Your task to perform on an android device: Go to accessibility settings Image 0: 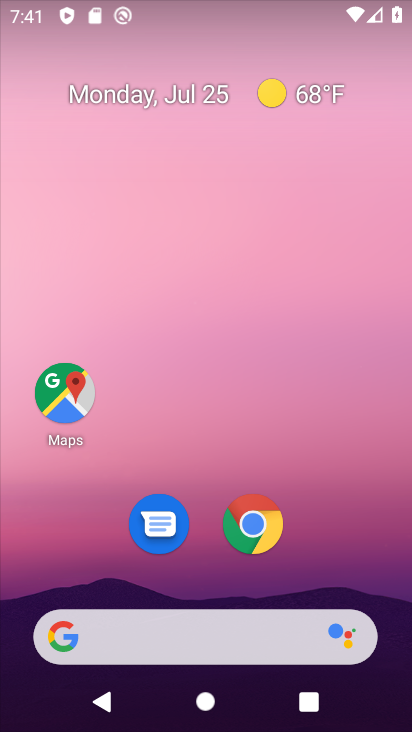
Step 0: drag from (346, 565) to (273, 75)
Your task to perform on an android device: Go to accessibility settings Image 1: 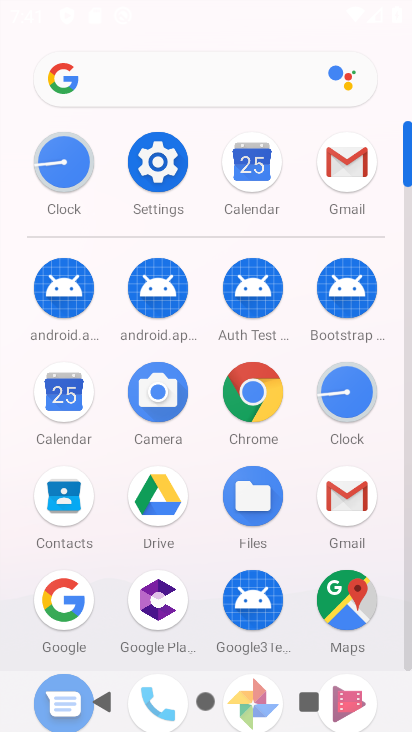
Step 1: click (161, 172)
Your task to perform on an android device: Go to accessibility settings Image 2: 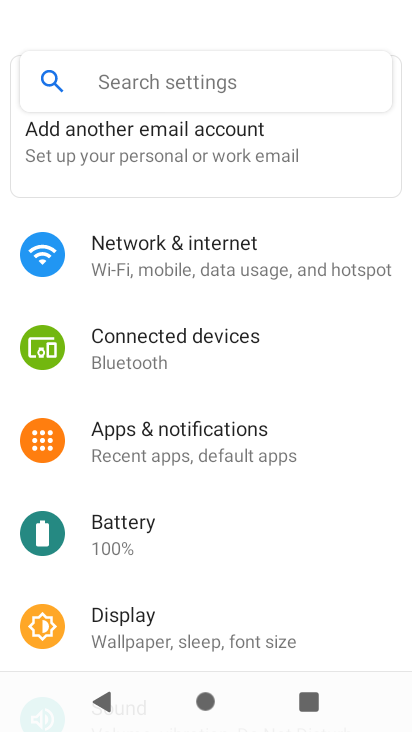
Step 2: drag from (208, 554) to (212, 128)
Your task to perform on an android device: Go to accessibility settings Image 3: 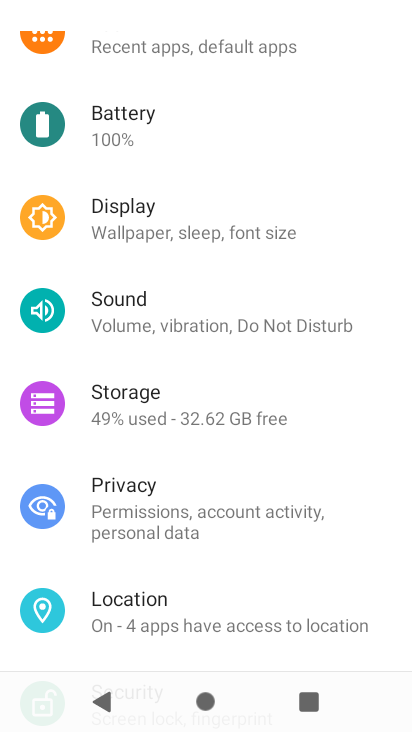
Step 3: drag from (204, 541) to (208, 176)
Your task to perform on an android device: Go to accessibility settings Image 4: 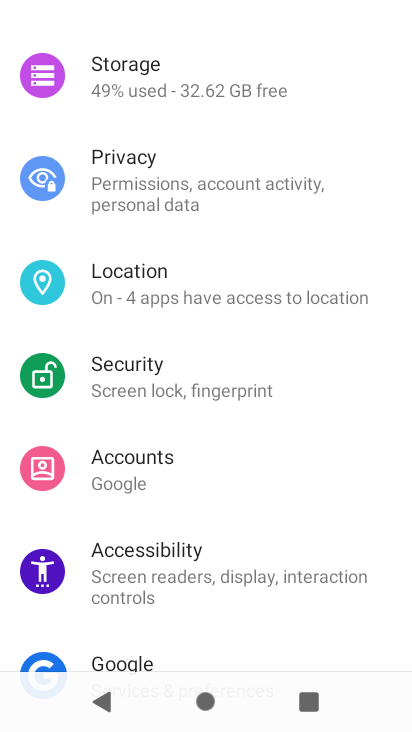
Step 4: click (181, 563)
Your task to perform on an android device: Go to accessibility settings Image 5: 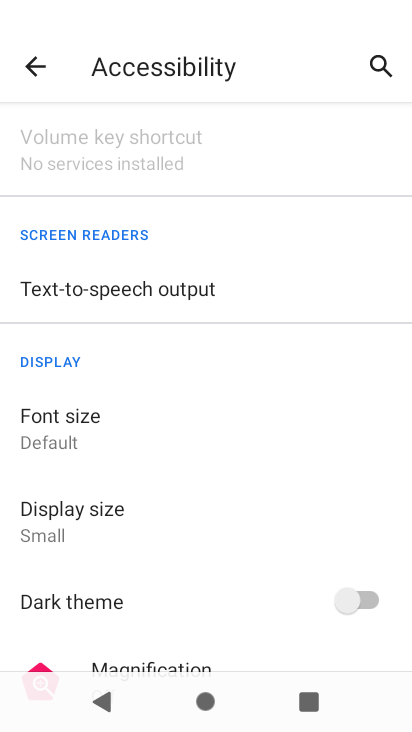
Step 5: task complete